Your task to perform on an android device: Do I have any events today? Image 0: 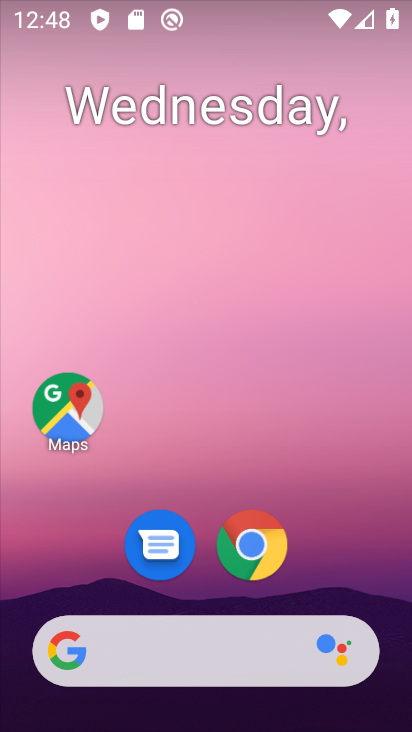
Step 0: drag from (335, 517) to (306, 181)
Your task to perform on an android device: Do I have any events today? Image 1: 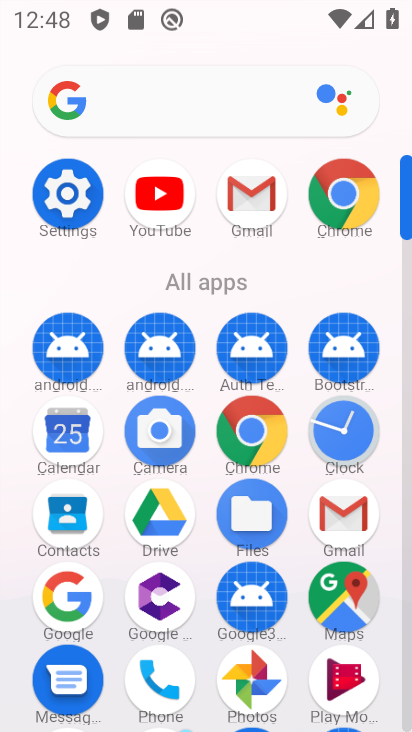
Step 1: click (66, 428)
Your task to perform on an android device: Do I have any events today? Image 2: 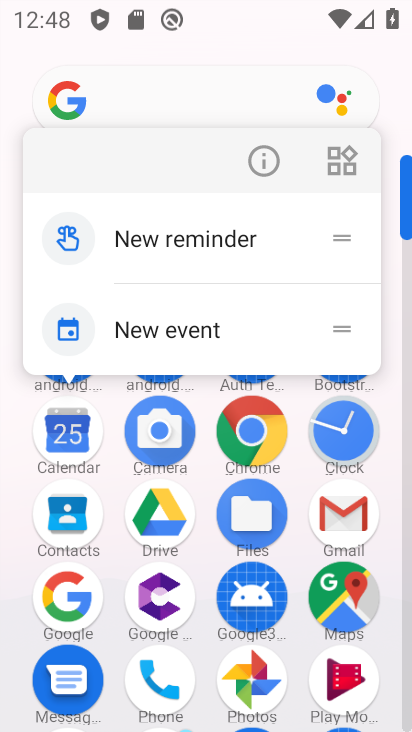
Step 2: click (66, 428)
Your task to perform on an android device: Do I have any events today? Image 3: 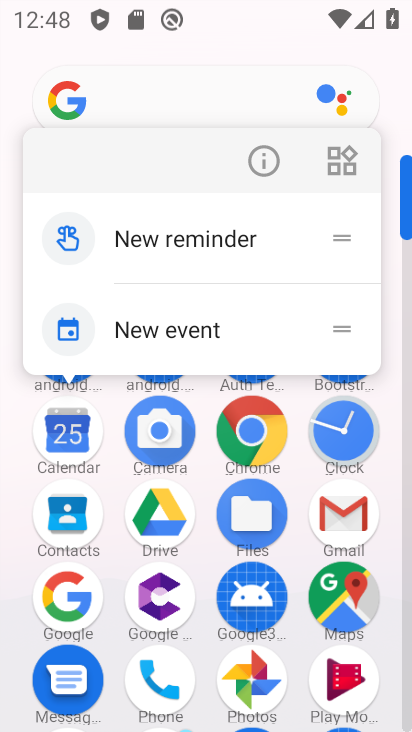
Step 3: click (66, 428)
Your task to perform on an android device: Do I have any events today? Image 4: 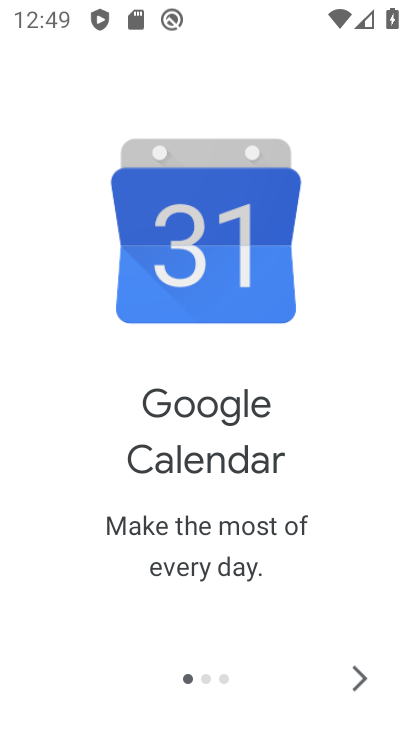
Step 4: click (362, 681)
Your task to perform on an android device: Do I have any events today? Image 5: 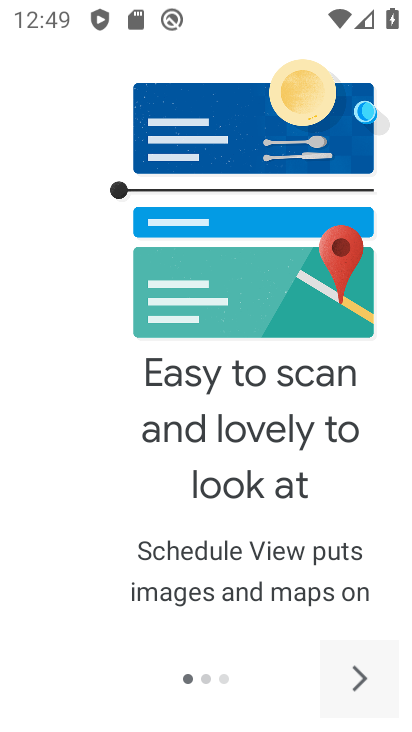
Step 5: click (362, 680)
Your task to perform on an android device: Do I have any events today? Image 6: 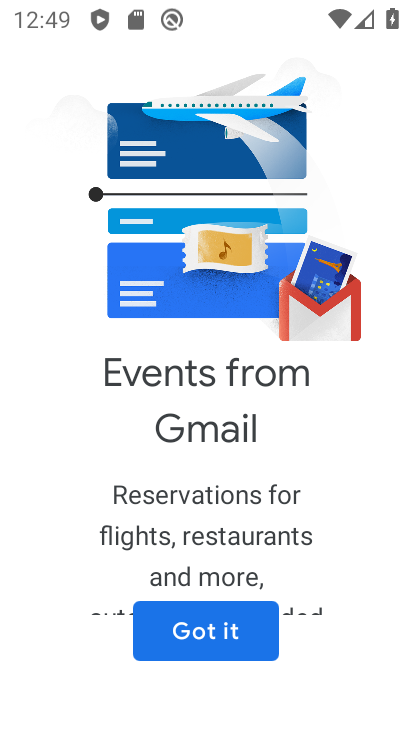
Step 6: click (256, 637)
Your task to perform on an android device: Do I have any events today? Image 7: 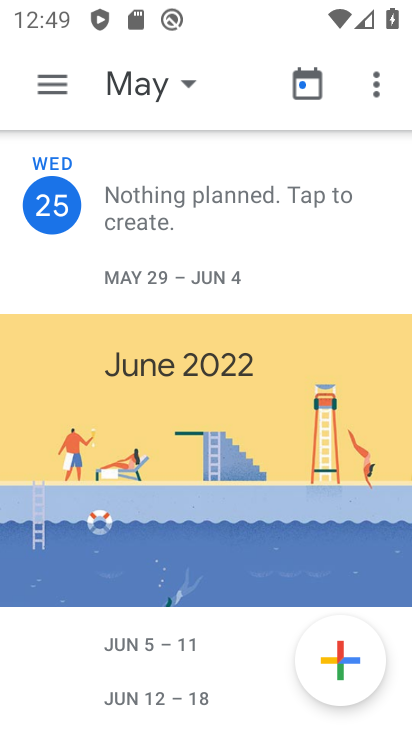
Step 7: task complete